Your task to perform on an android device: install app "Firefox Browser" Image 0: 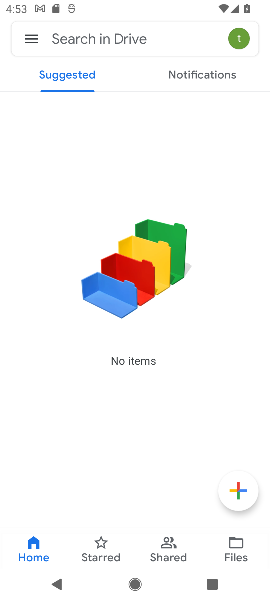
Step 0: press home button
Your task to perform on an android device: install app "Firefox Browser" Image 1: 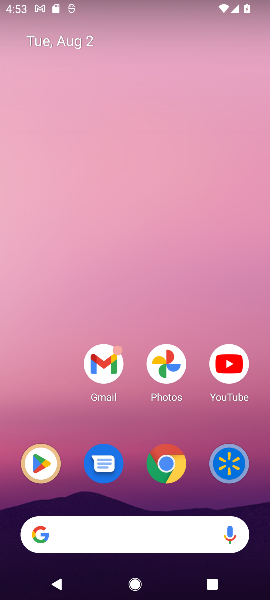
Step 1: click (36, 468)
Your task to perform on an android device: install app "Firefox Browser" Image 2: 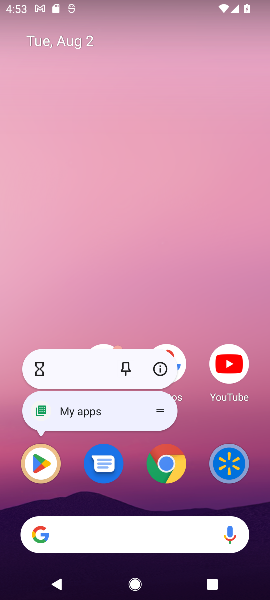
Step 2: click (38, 465)
Your task to perform on an android device: install app "Firefox Browser" Image 3: 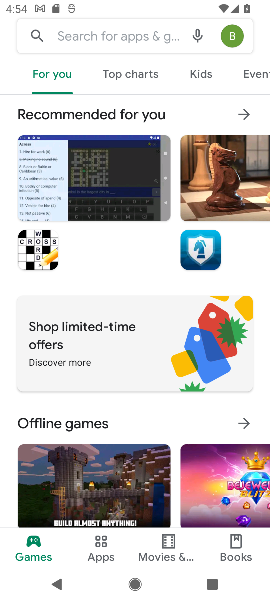
Step 3: click (127, 33)
Your task to perform on an android device: install app "Firefox Browser" Image 4: 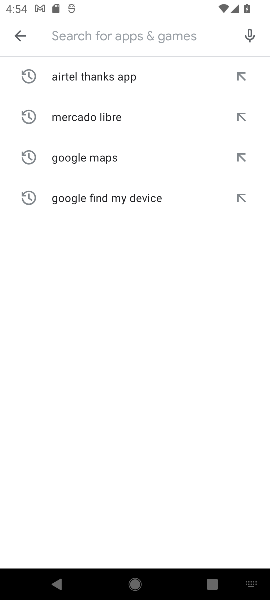
Step 4: type "Firefox Browser"
Your task to perform on an android device: install app "Firefox Browser" Image 5: 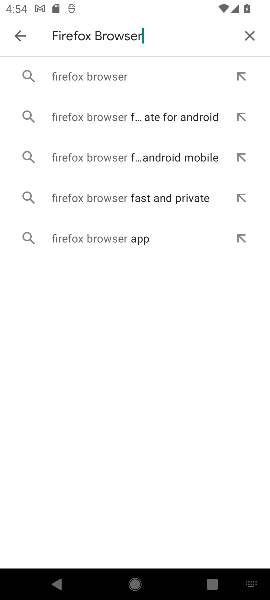
Step 5: click (96, 77)
Your task to perform on an android device: install app "Firefox Browser" Image 6: 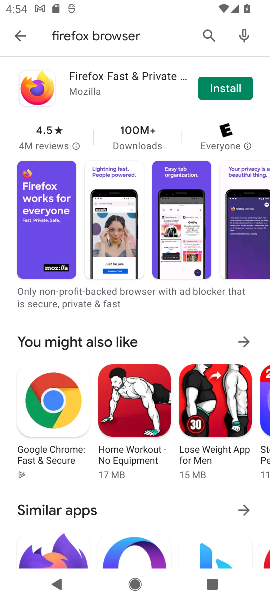
Step 6: click (226, 88)
Your task to perform on an android device: install app "Firefox Browser" Image 7: 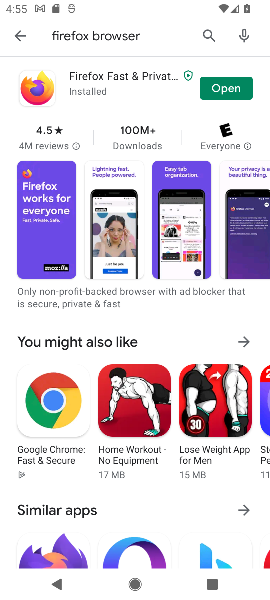
Step 7: task complete